Your task to perform on an android device: Is it going to rain this weekend? Image 0: 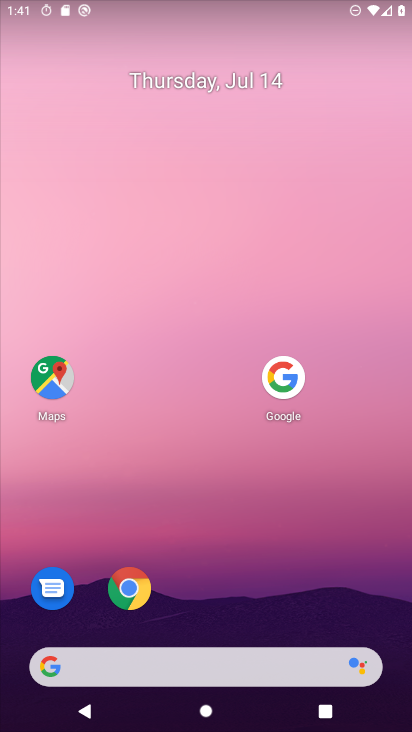
Step 0: click (182, 673)
Your task to perform on an android device: Is it going to rain this weekend? Image 1: 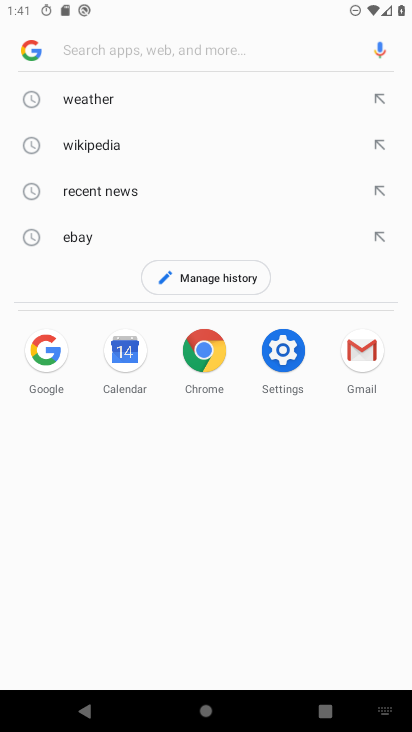
Step 1: click (93, 98)
Your task to perform on an android device: Is it going to rain this weekend? Image 2: 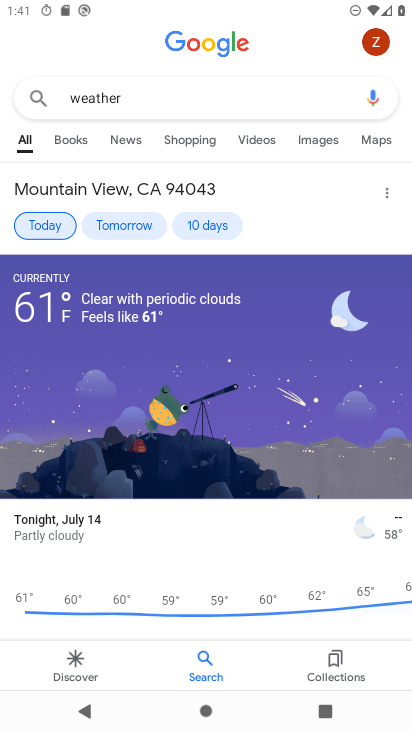
Step 2: click (208, 226)
Your task to perform on an android device: Is it going to rain this weekend? Image 3: 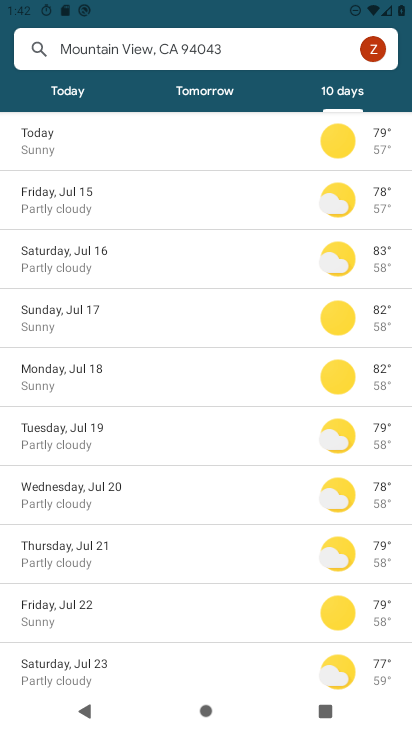
Step 3: click (98, 262)
Your task to perform on an android device: Is it going to rain this weekend? Image 4: 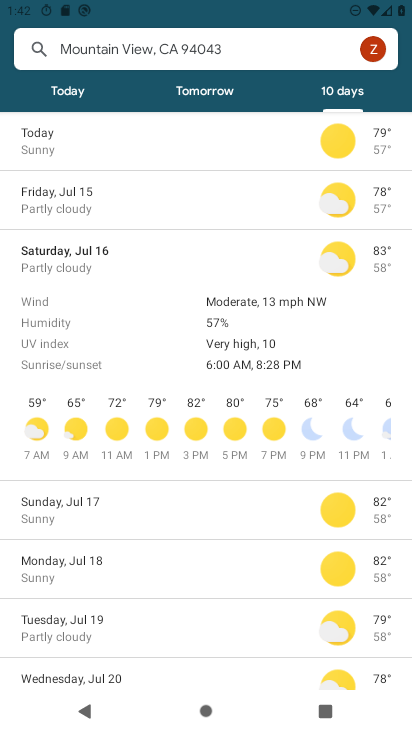
Step 4: task complete